Your task to perform on an android device: toggle pop-ups in chrome Image 0: 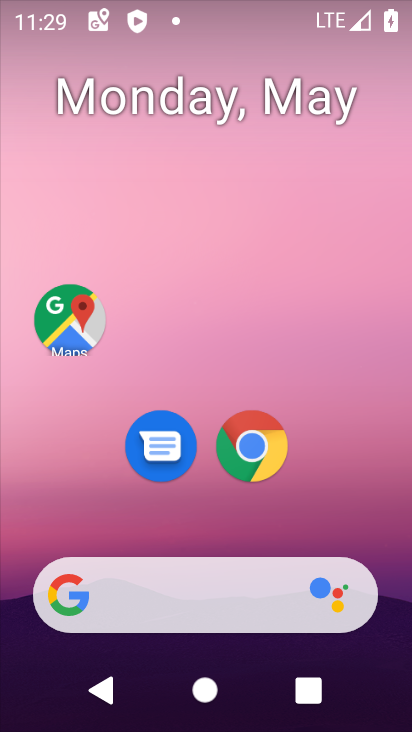
Step 0: click (244, 446)
Your task to perform on an android device: toggle pop-ups in chrome Image 1: 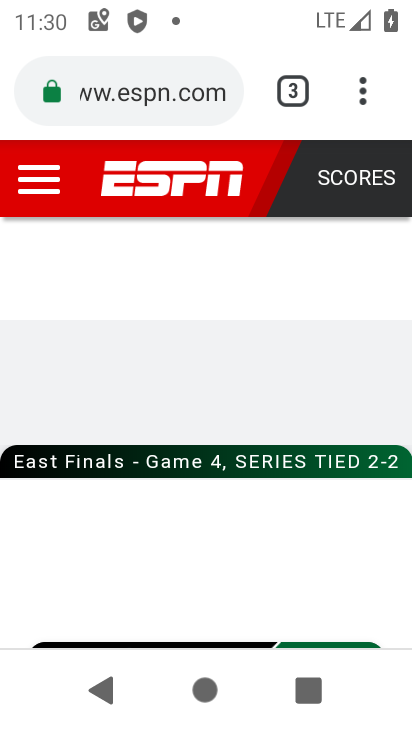
Step 1: drag from (370, 97) to (109, 487)
Your task to perform on an android device: toggle pop-ups in chrome Image 2: 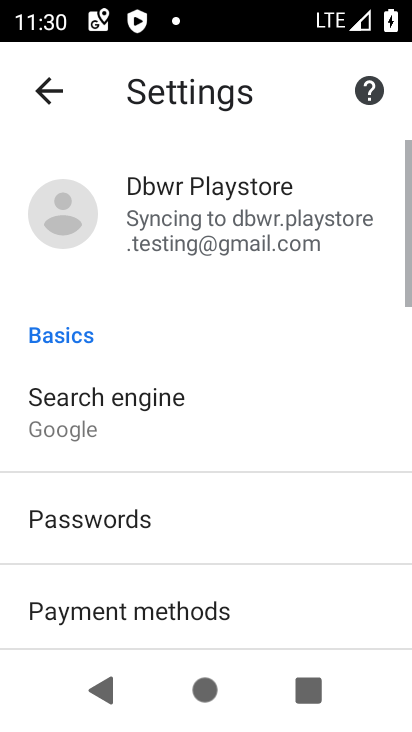
Step 2: drag from (119, 561) to (81, 277)
Your task to perform on an android device: toggle pop-ups in chrome Image 3: 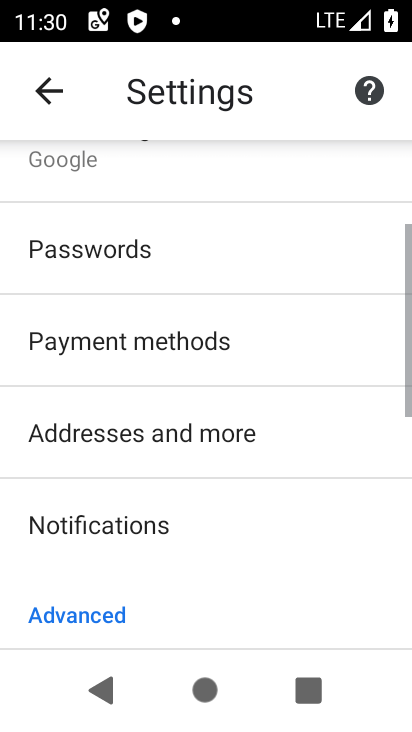
Step 3: drag from (80, 564) to (78, 204)
Your task to perform on an android device: toggle pop-ups in chrome Image 4: 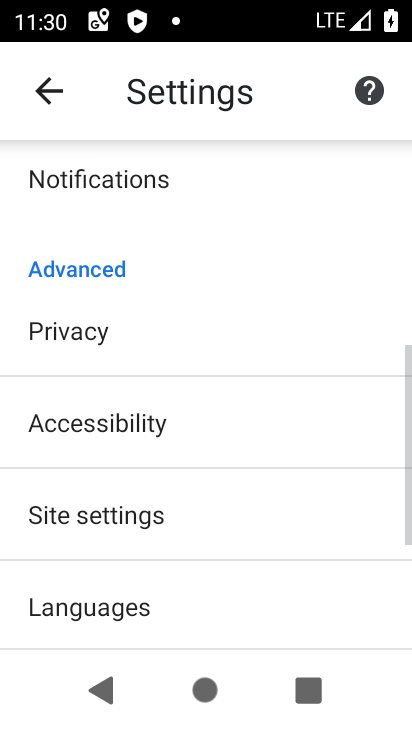
Step 4: drag from (100, 518) to (83, 254)
Your task to perform on an android device: toggle pop-ups in chrome Image 5: 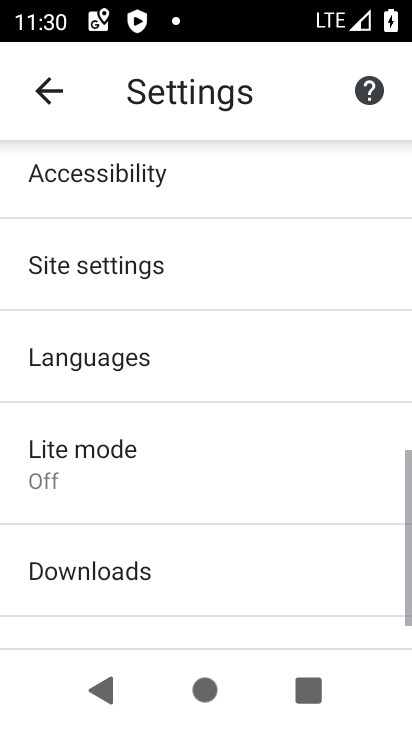
Step 5: click (57, 271)
Your task to perform on an android device: toggle pop-ups in chrome Image 6: 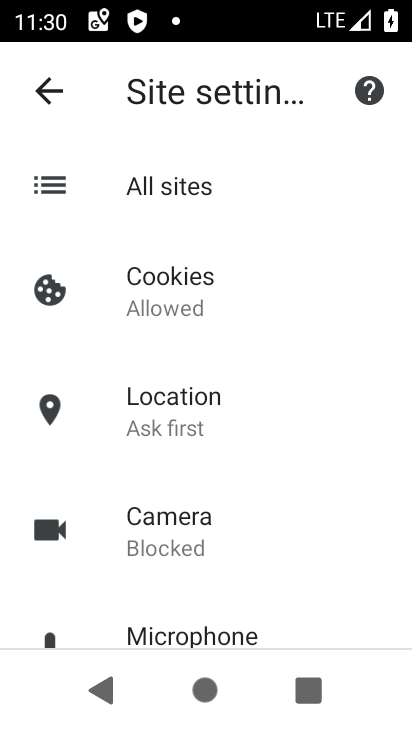
Step 6: drag from (190, 528) to (137, 179)
Your task to perform on an android device: toggle pop-ups in chrome Image 7: 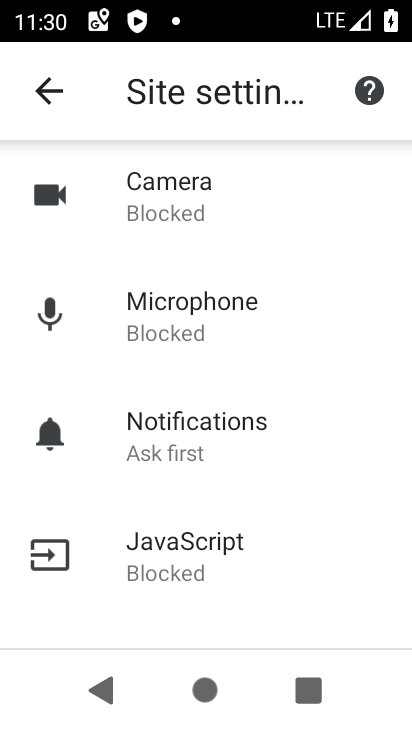
Step 7: drag from (171, 502) to (150, 207)
Your task to perform on an android device: toggle pop-ups in chrome Image 8: 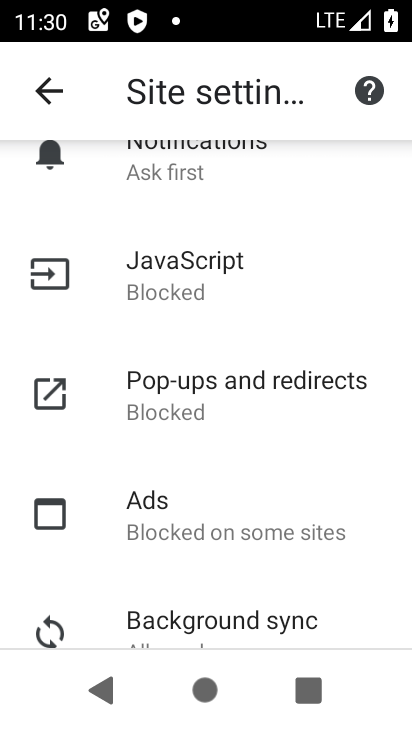
Step 8: click (178, 383)
Your task to perform on an android device: toggle pop-ups in chrome Image 9: 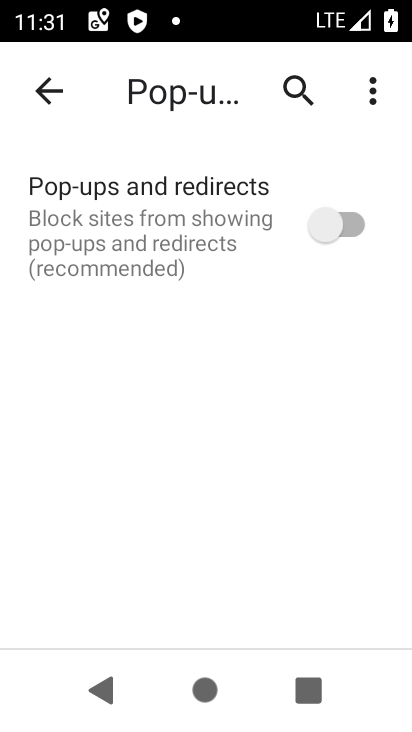
Step 9: task complete